Your task to perform on an android device: open wifi settings Image 0: 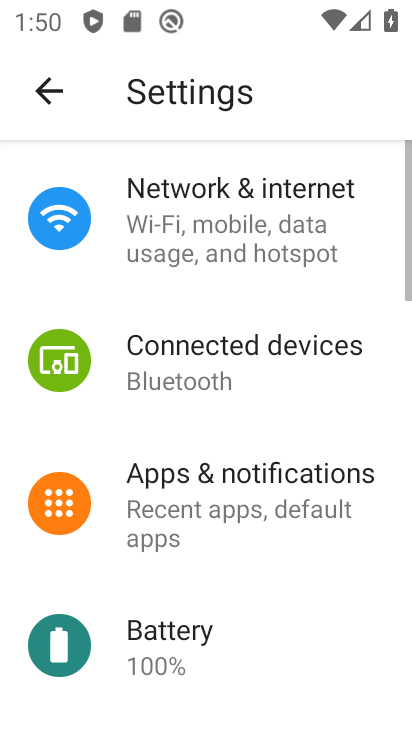
Step 0: drag from (120, 63) to (133, 514)
Your task to perform on an android device: open wifi settings Image 1: 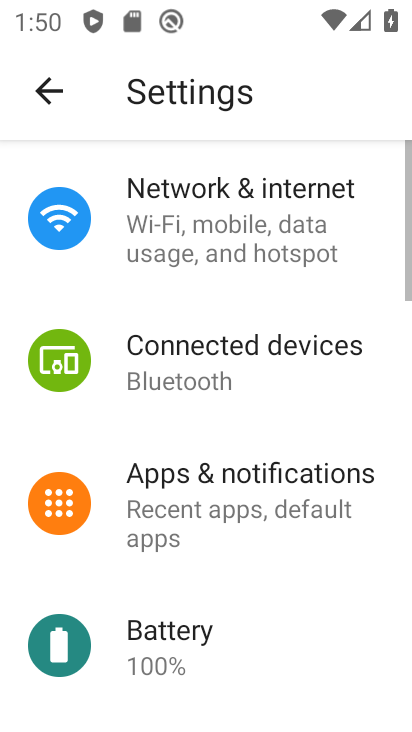
Step 1: drag from (98, 38) to (134, 502)
Your task to perform on an android device: open wifi settings Image 2: 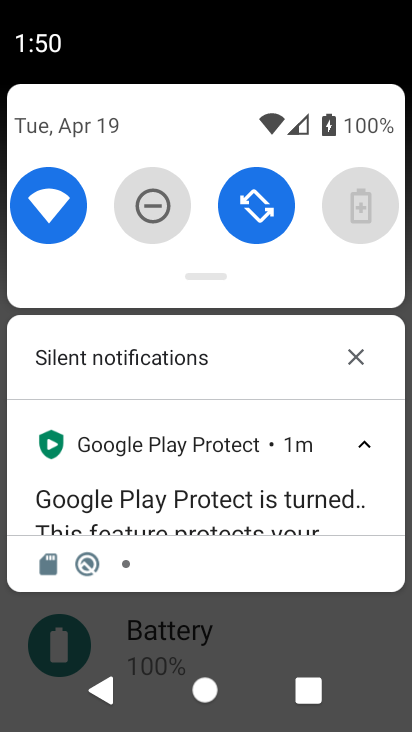
Step 2: click (63, 206)
Your task to perform on an android device: open wifi settings Image 3: 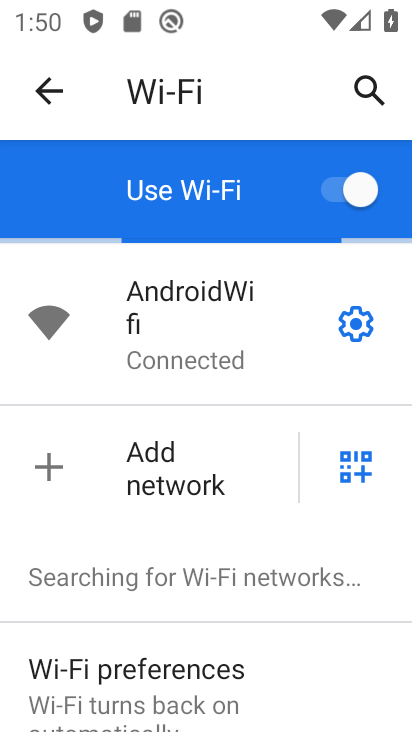
Step 3: task complete